Your task to perform on an android device: Open eBay Image 0: 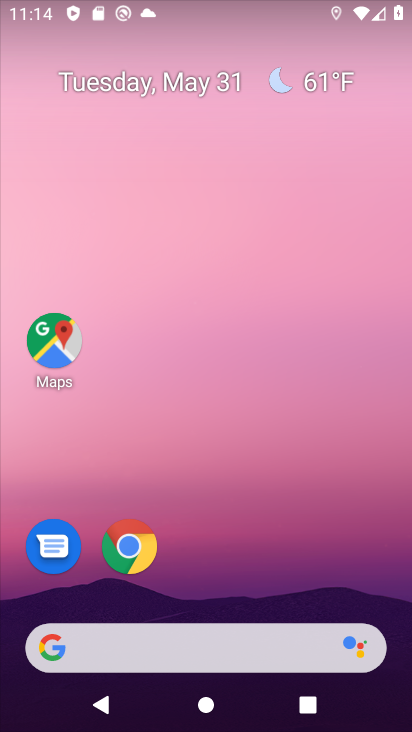
Step 0: drag from (221, 616) to (231, 1)
Your task to perform on an android device: Open eBay Image 1: 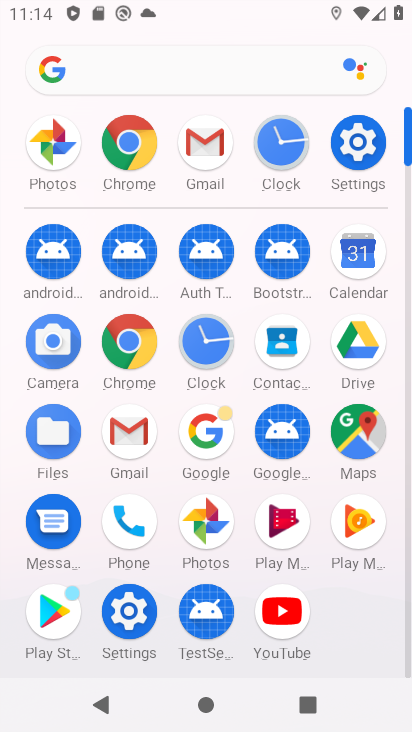
Step 1: click (136, 352)
Your task to perform on an android device: Open eBay Image 2: 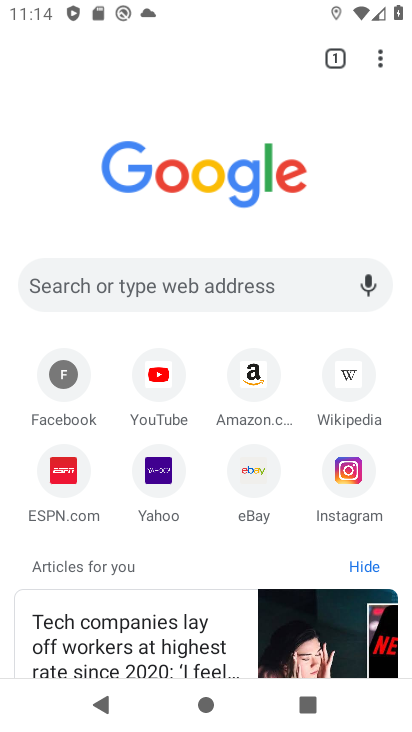
Step 2: click (242, 479)
Your task to perform on an android device: Open eBay Image 3: 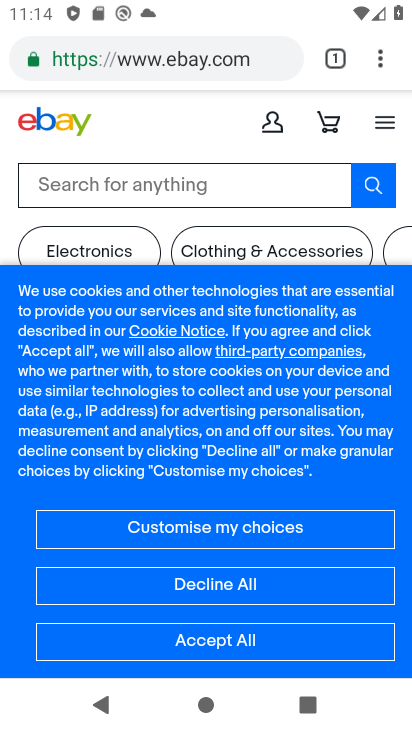
Step 3: task complete